Your task to perform on an android device: Go to Reddit.com Image 0: 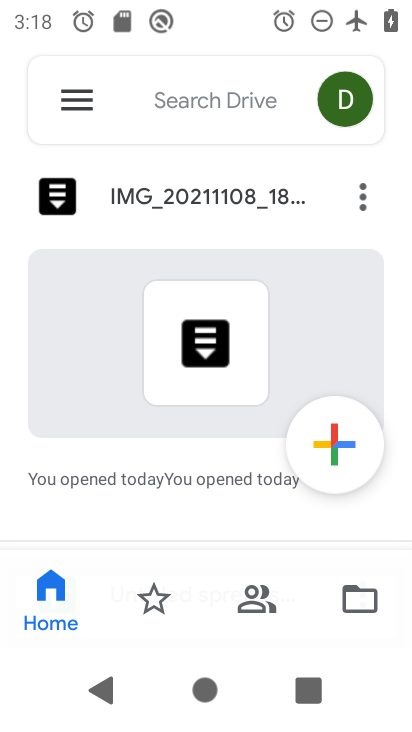
Step 0: press home button
Your task to perform on an android device: Go to Reddit.com Image 1: 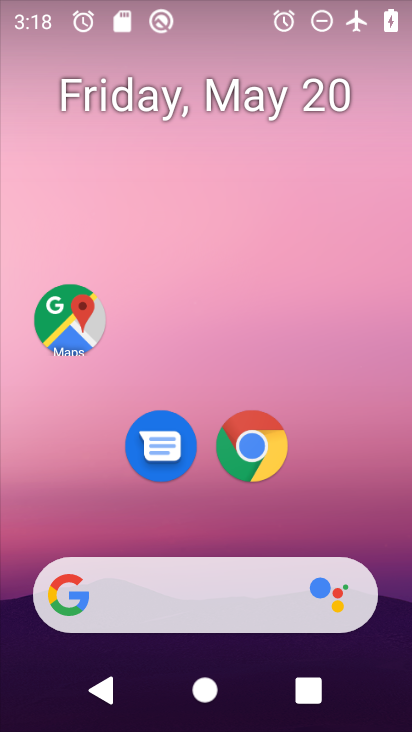
Step 1: click (251, 445)
Your task to perform on an android device: Go to Reddit.com Image 2: 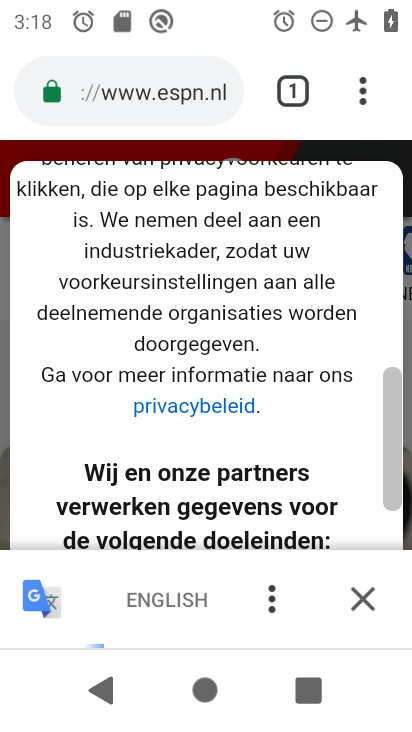
Step 2: click (118, 92)
Your task to perform on an android device: Go to Reddit.com Image 3: 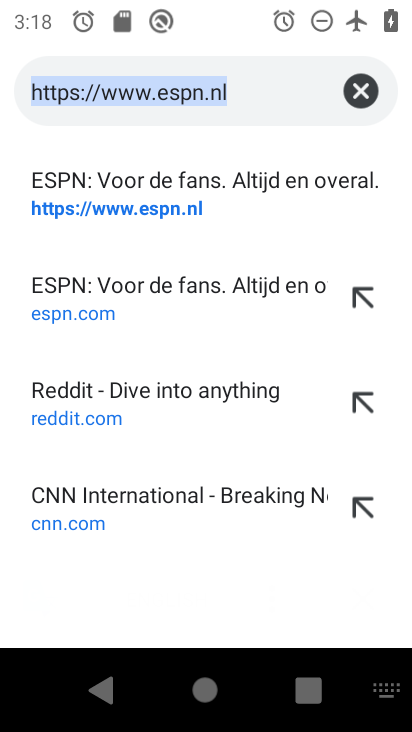
Step 3: click (77, 395)
Your task to perform on an android device: Go to Reddit.com Image 4: 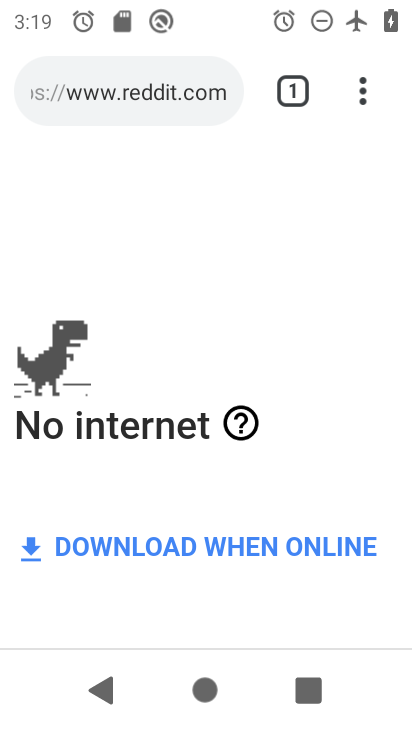
Step 4: task complete